Your task to perform on an android device: toggle translation in the chrome app Image 0: 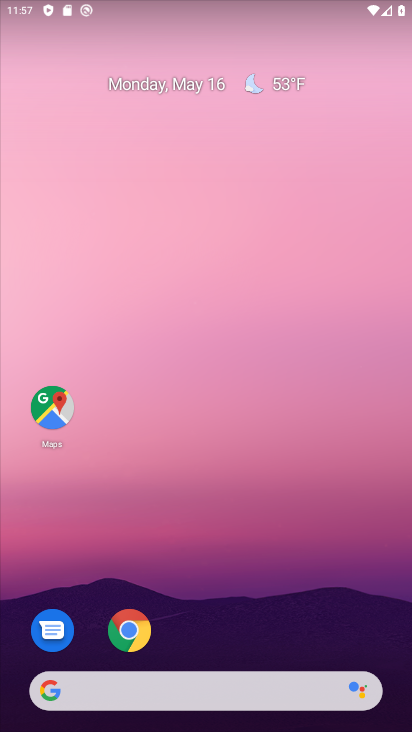
Step 0: drag from (232, 679) to (242, 138)
Your task to perform on an android device: toggle translation in the chrome app Image 1: 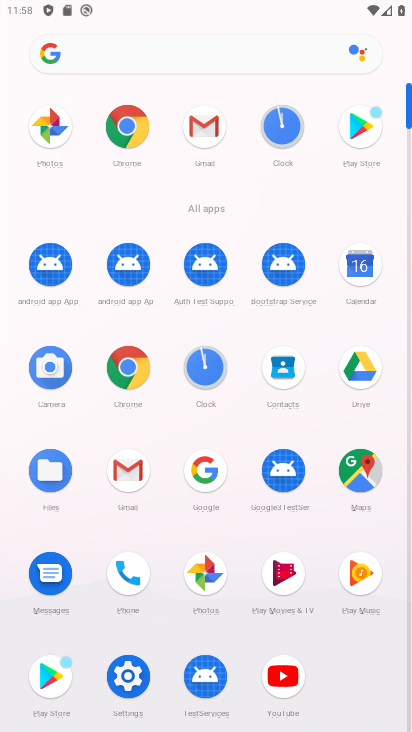
Step 1: click (131, 400)
Your task to perform on an android device: toggle translation in the chrome app Image 2: 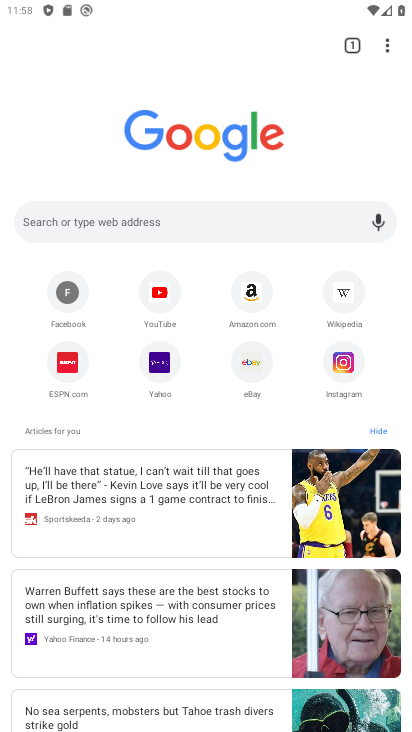
Step 2: click (386, 51)
Your task to perform on an android device: toggle translation in the chrome app Image 3: 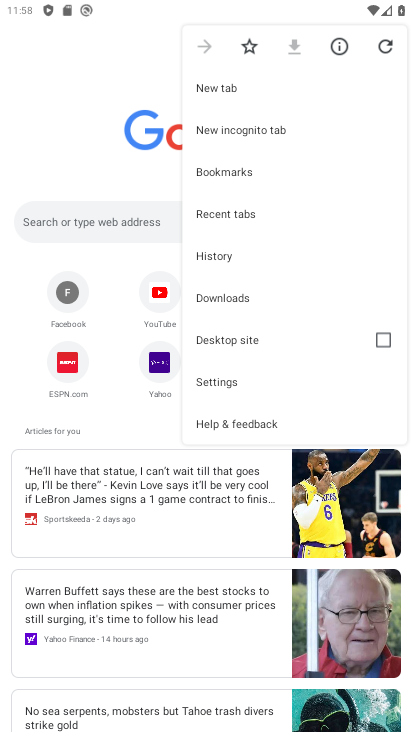
Step 3: task complete